Your task to perform on an android device: Show me popular games on the Play Store Image 0: 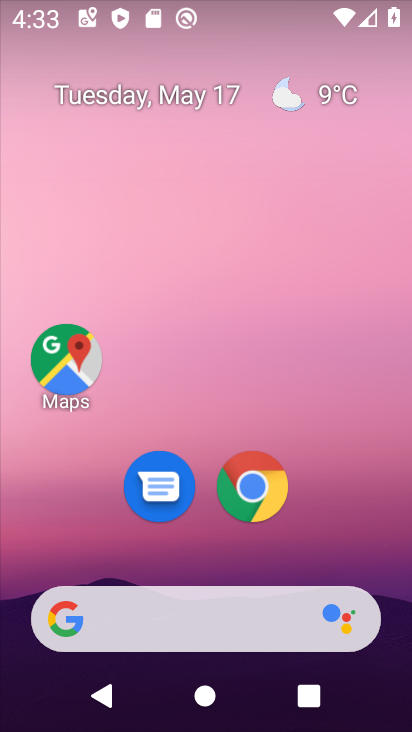
Step 0: drag from (353, 563) to (242, 210)
Your task to perform on an android device: Show me popular games on the Play Store Image 1: 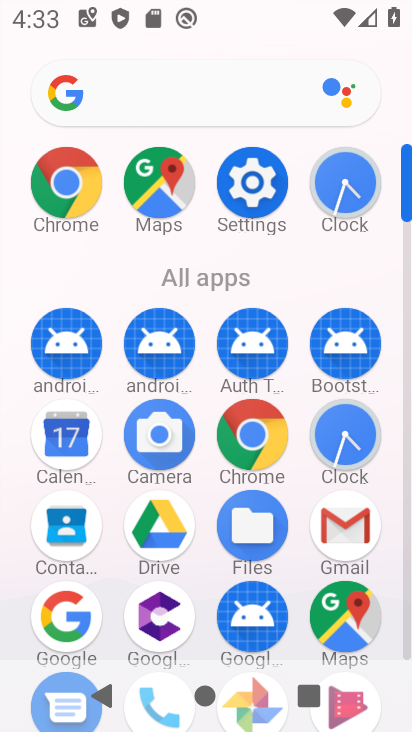
Step 1: click (407, 642)
Your task to perform on an android device: Show me popular games on the Play Store Image 2: 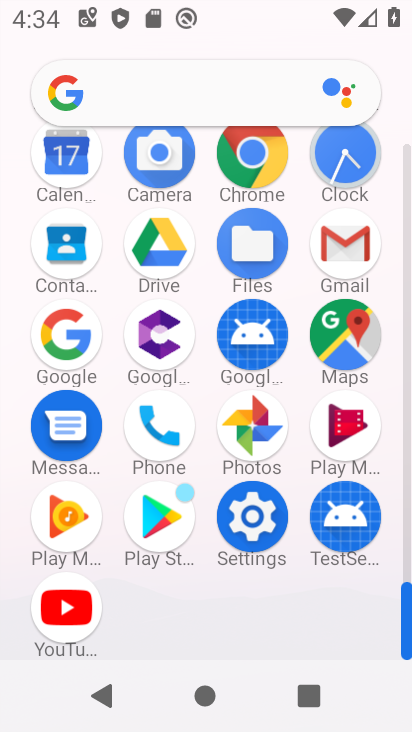
Step 2: click (155, 534)
Your task to perform on an android device: Show me popular games on the Play Store Image 3: 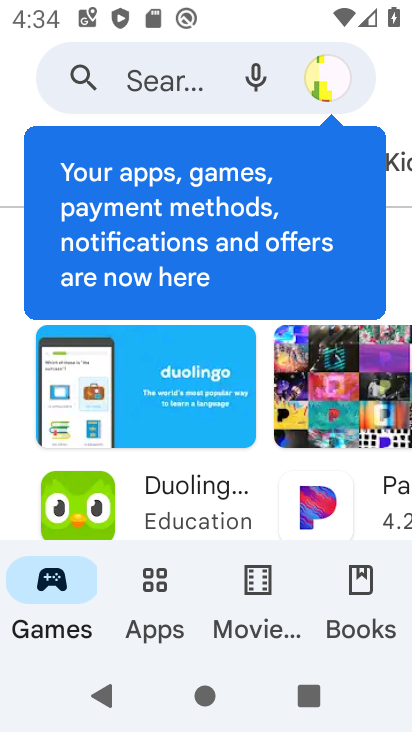
Step 3: drag from (218, 492) to (217, 551)
Your task to perform on an android device: Show me popular games on the Play Store Image 4: 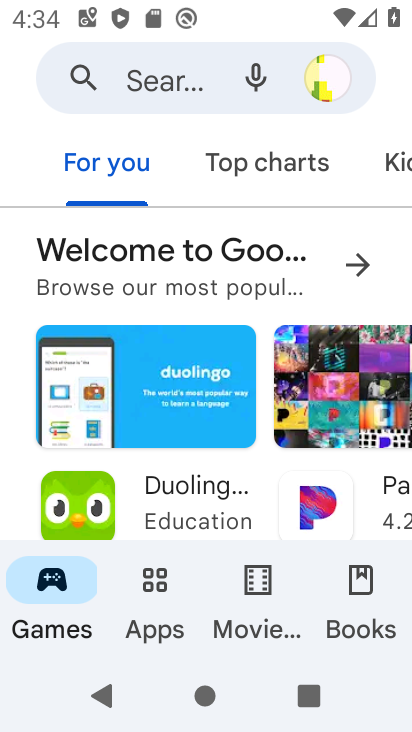
Step 4: click (231, 257)
Your task to perform on an android device: Show me popular games on the Play Store Image 5: 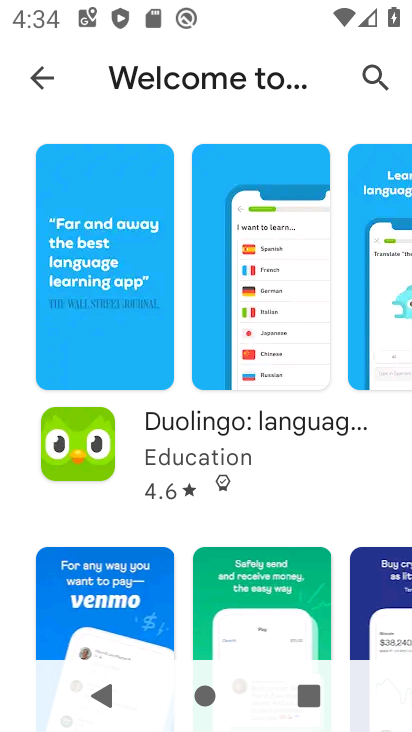
Step 5: task complete